Your task to perform on an android device: Open privacy settings Image 0: 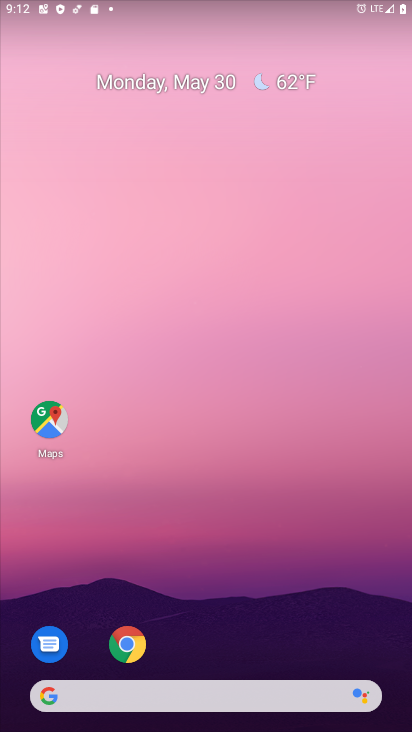
Step 0: drag from (358, 657) to (299, 216)
Your task to perform on an android device: Open privacy settings Image 1: 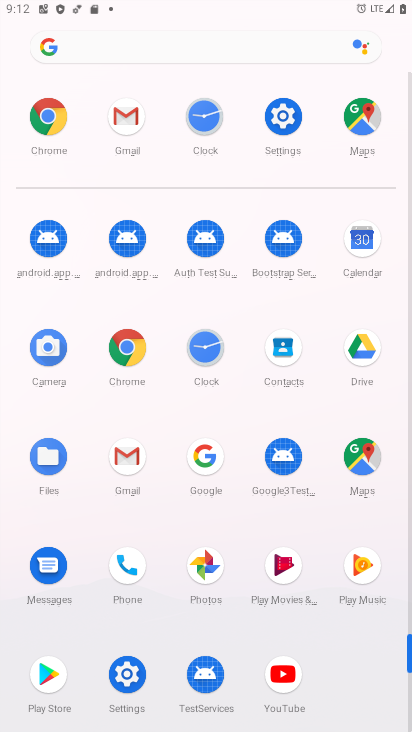
Step 1: click (127, 675)
Your task to perform on an android device: Open privacy settings Image 2: 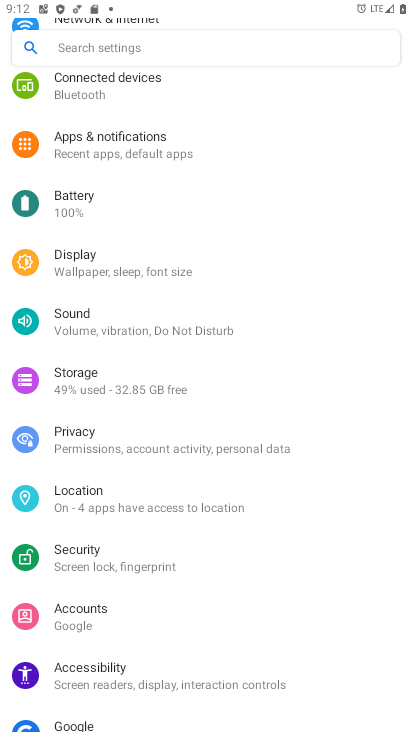
Step 2: click (79, 433)
Your task to perform on an android device: Open privacy settings Image 3: 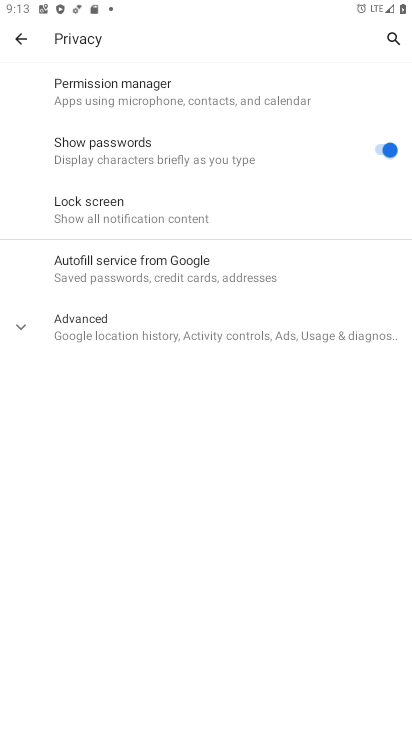
Step 3: click (19, 333)
Your task to perform on an android device: Open privacy settings Image 4: 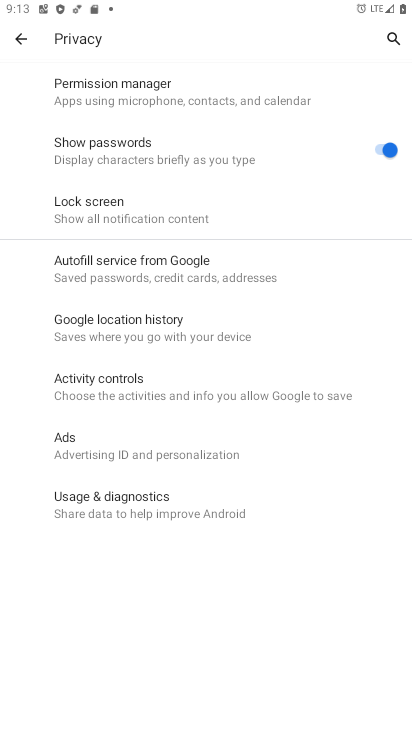
Step 4: task complete